Your task to perform on an android device: delete location history Image 0: 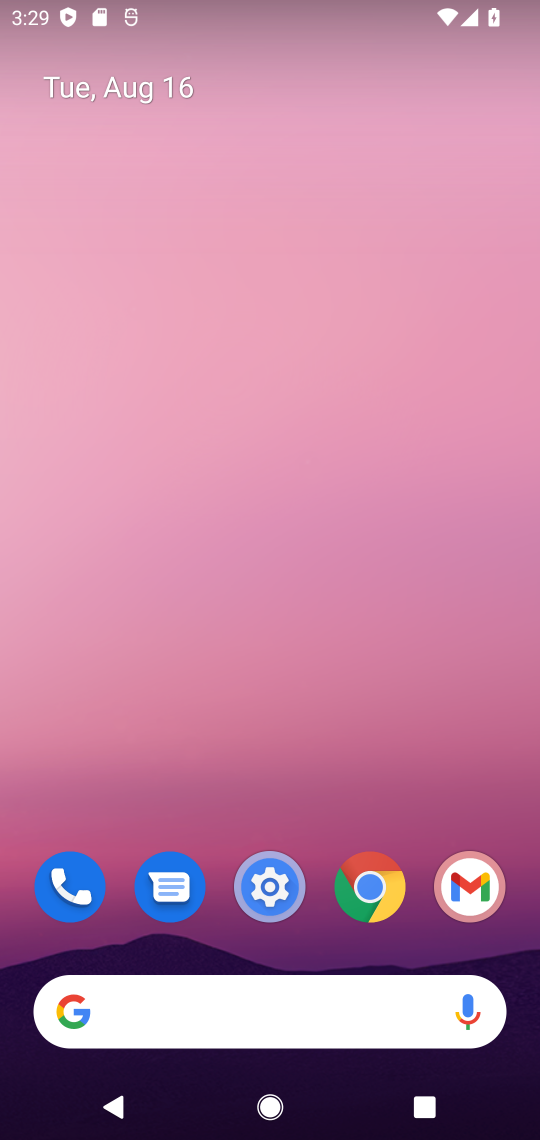
Step 0: drag from (336, 800) to (357, 279)
Your task to perform on an android device: delete location history Image 1: 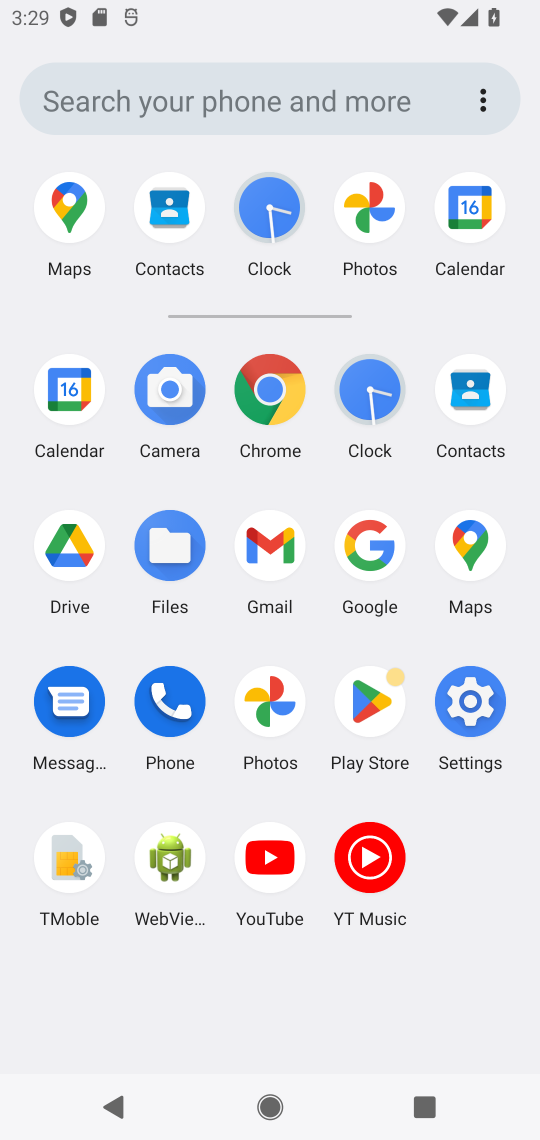
Step 1: click (476, 563)
Your task to perform on an android device: delete location history Image 2: 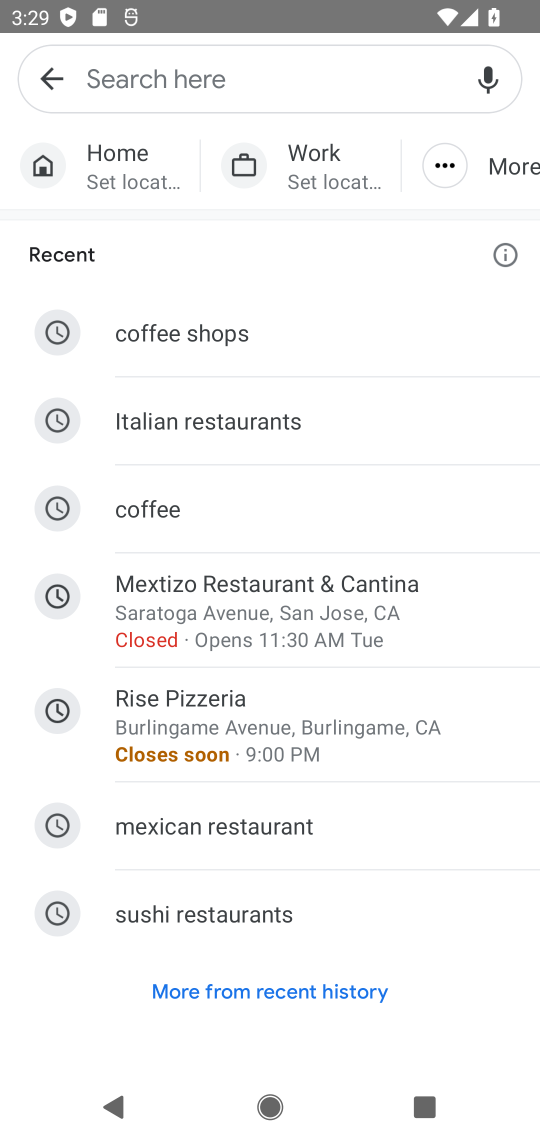
Step 2: click (59, 87)
Your task to perform on an android device: delete location history Image 3: 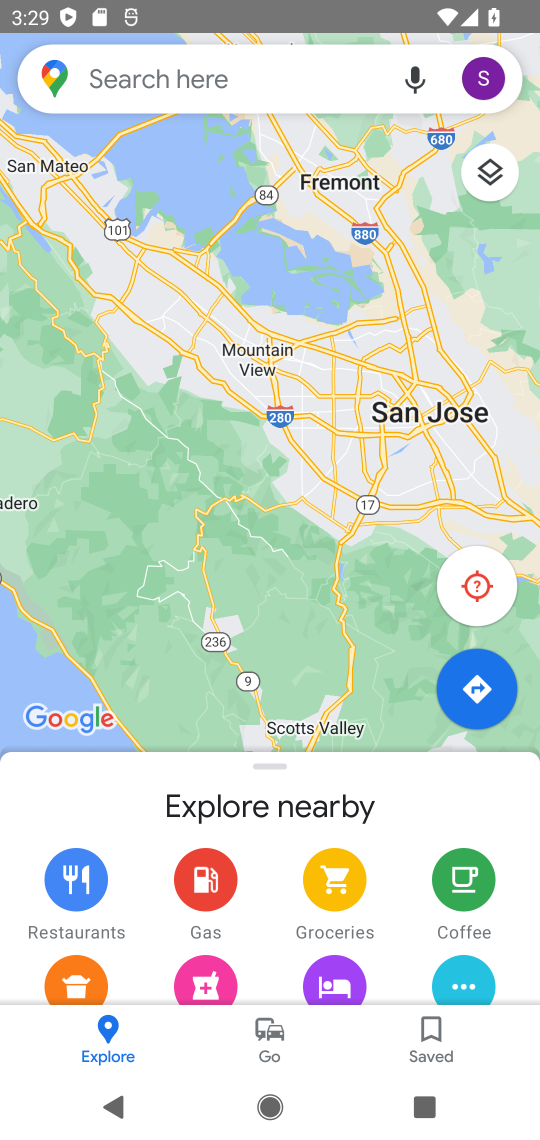
Step 3: click (59, 87)
Your task to perform on an android device: delete location history Image 4: 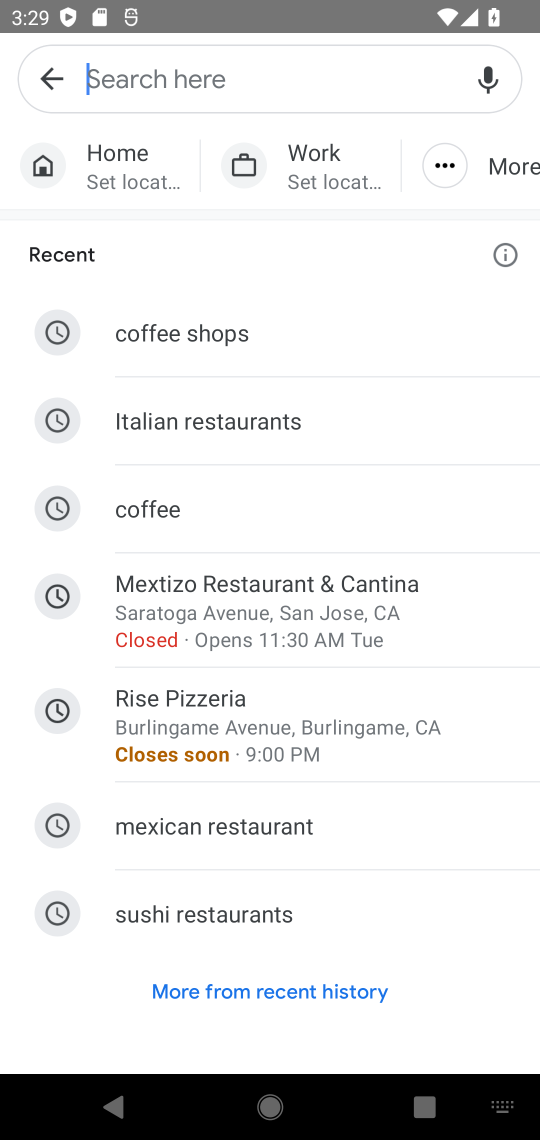
Step 4: click (59, 87)
Your task to perform on an android device: delete location history Image 5: 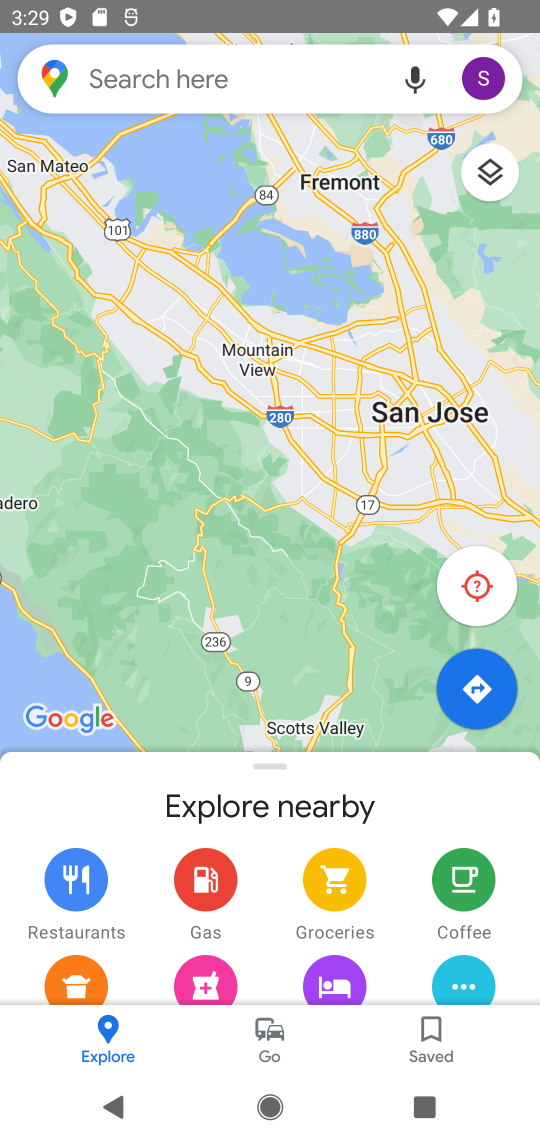
Step 5: click (483, 71)
Your task to perform on an android device: delete location history Image 6: 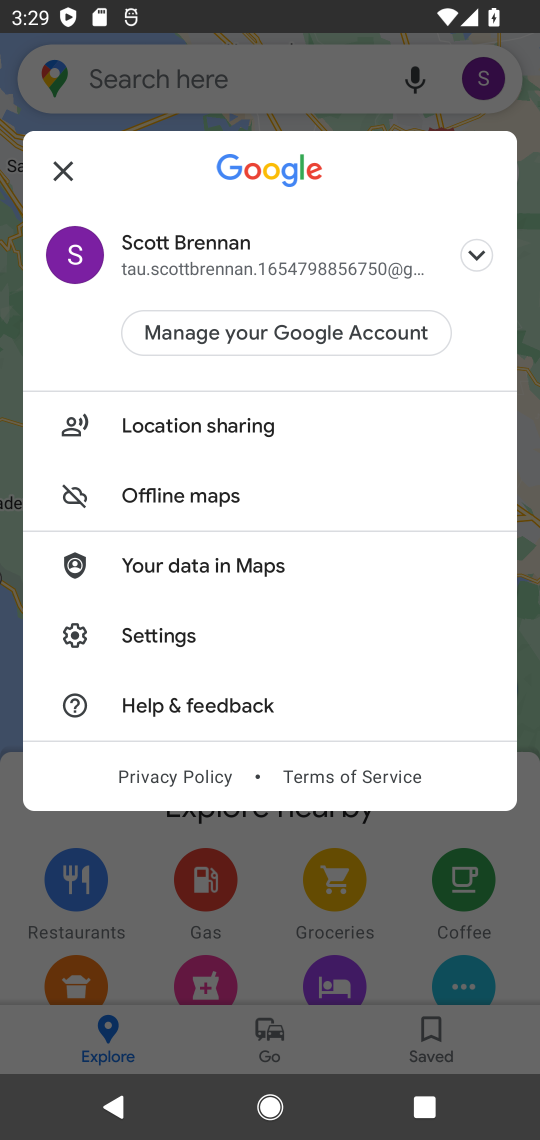
Step 6: click (162, 635)
Your task to perform on an android device: delete location history Image 7: 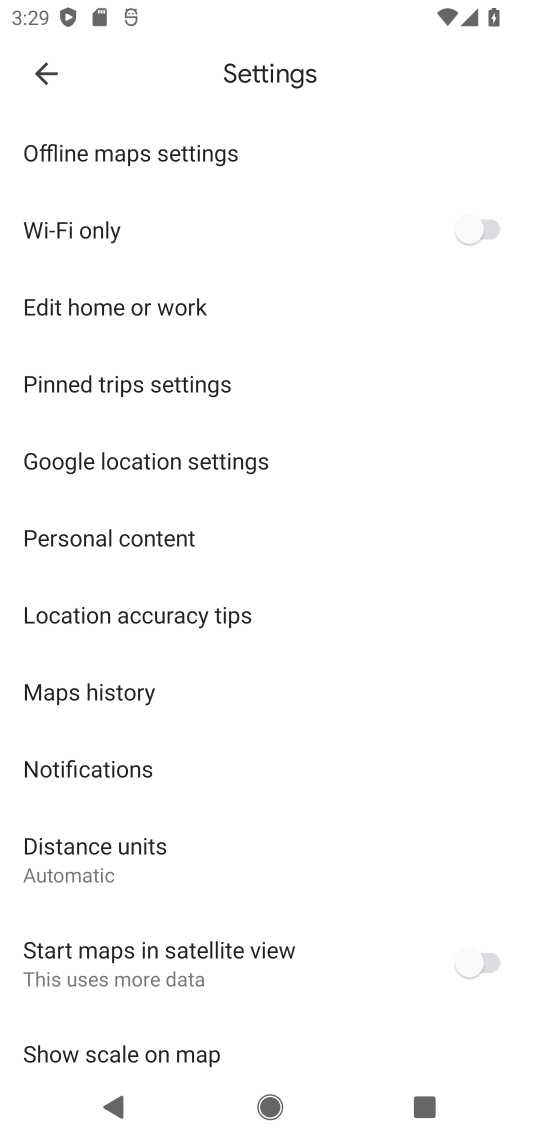
Step 7: click (57, 699)
Your task to perform on an android device: delete location history Image 8: 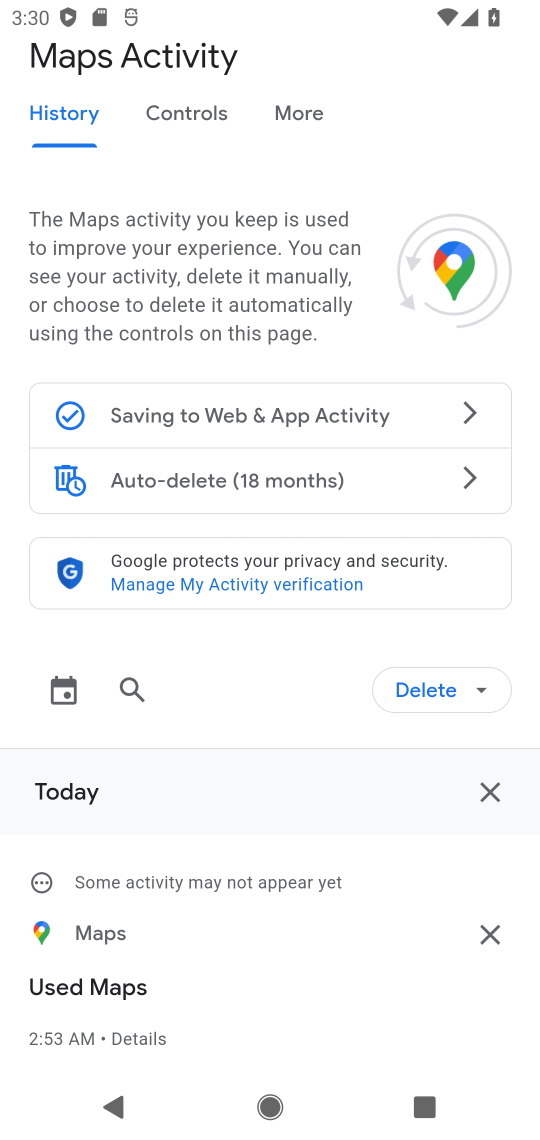
Step 8: click (490, 699)
Your task to perform on an android device: delete location history Image 9: 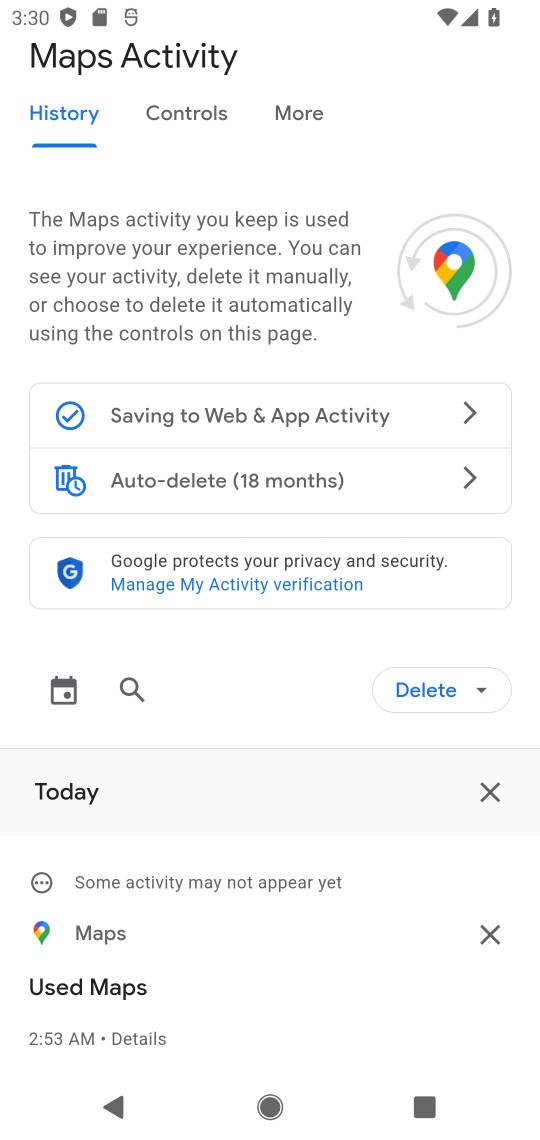
Step 9: click (490, 687)
Your task to perform on an android device: delete location history Image 10: 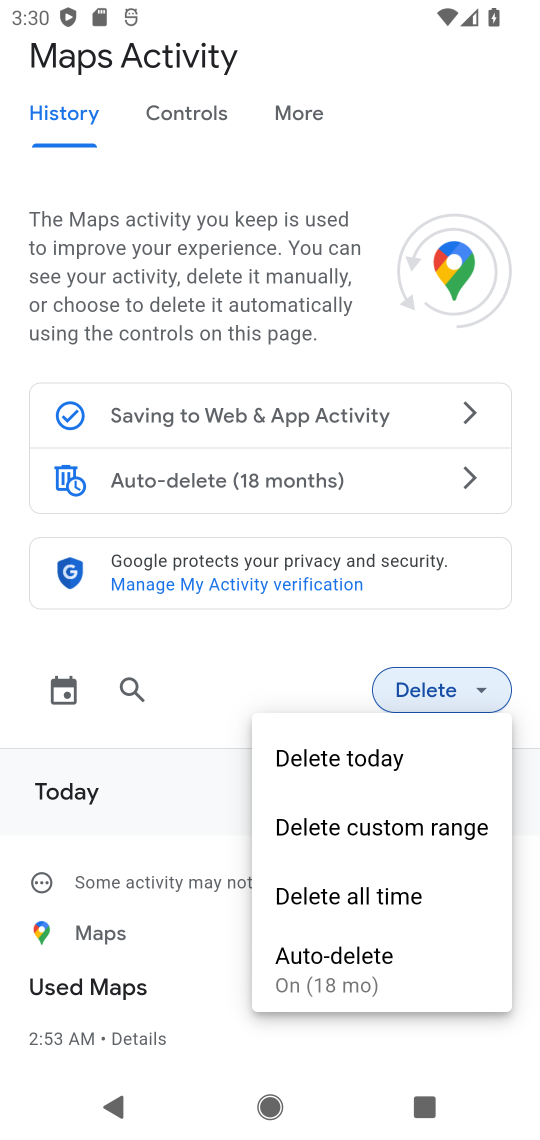
Step 10: click (393, 895)
Your task to perform on an android device: delete location history Image 11: 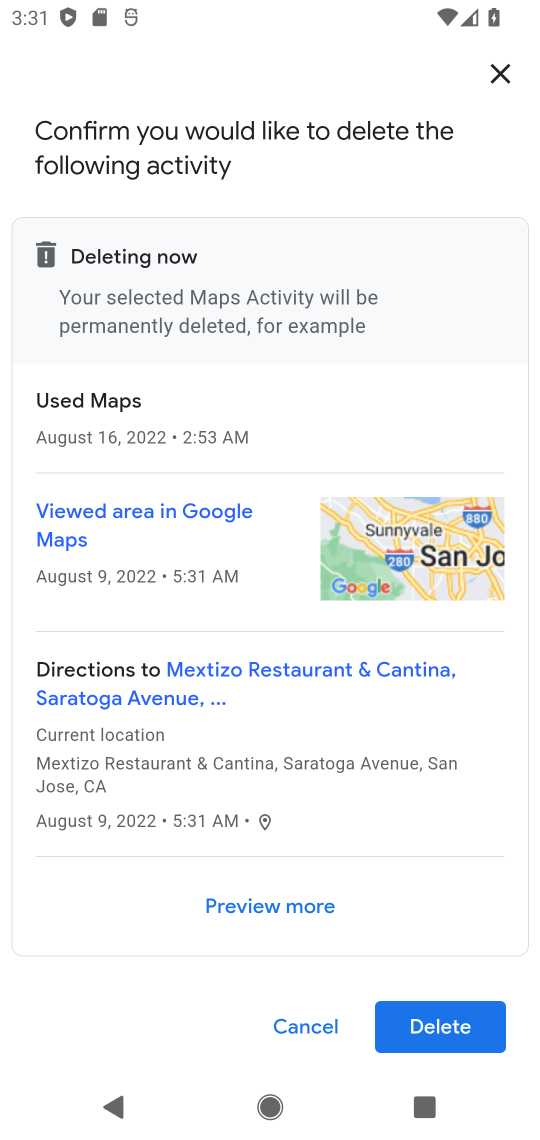
Step 11: click (473, 1043)
Your task to perform on an android device: delete location history Image 12: 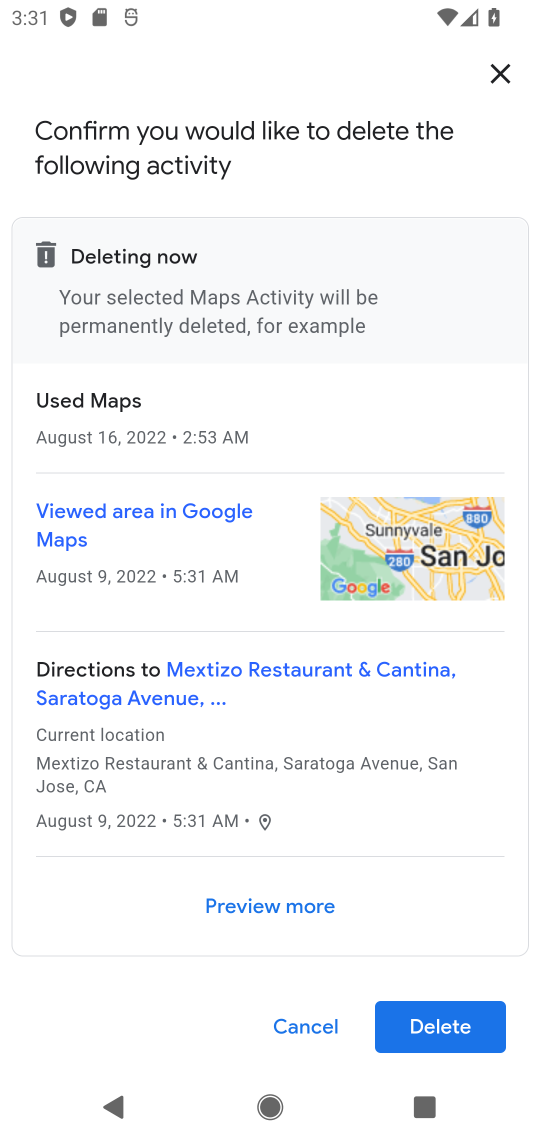
Step 12: click (472, 1032)
Your task to perform on an android device: delete location history Image 13: 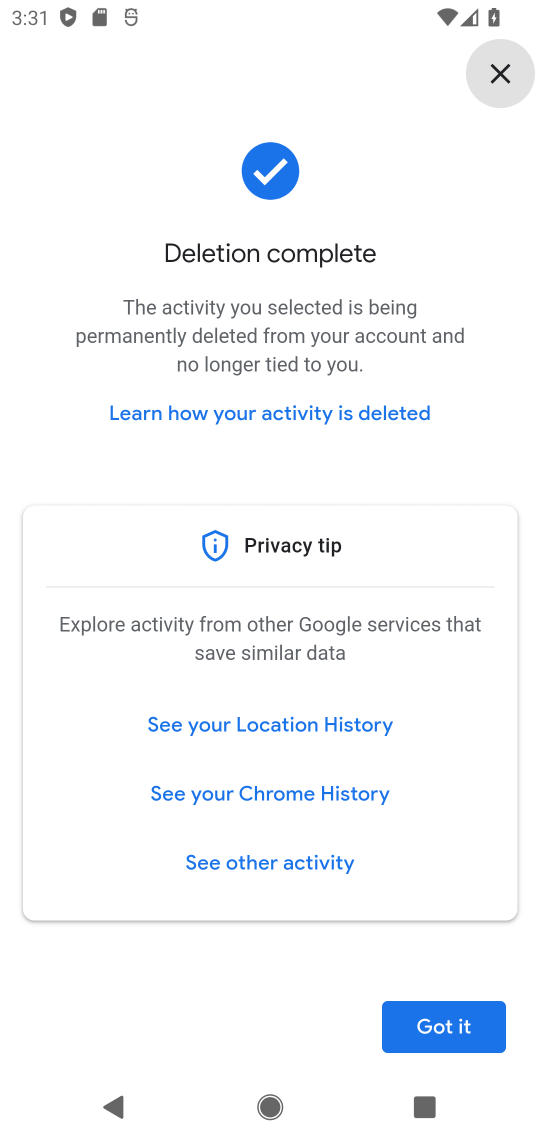
Step 13: click (472, 1030)
Your task to perform on an android device: delete location history Image 14: 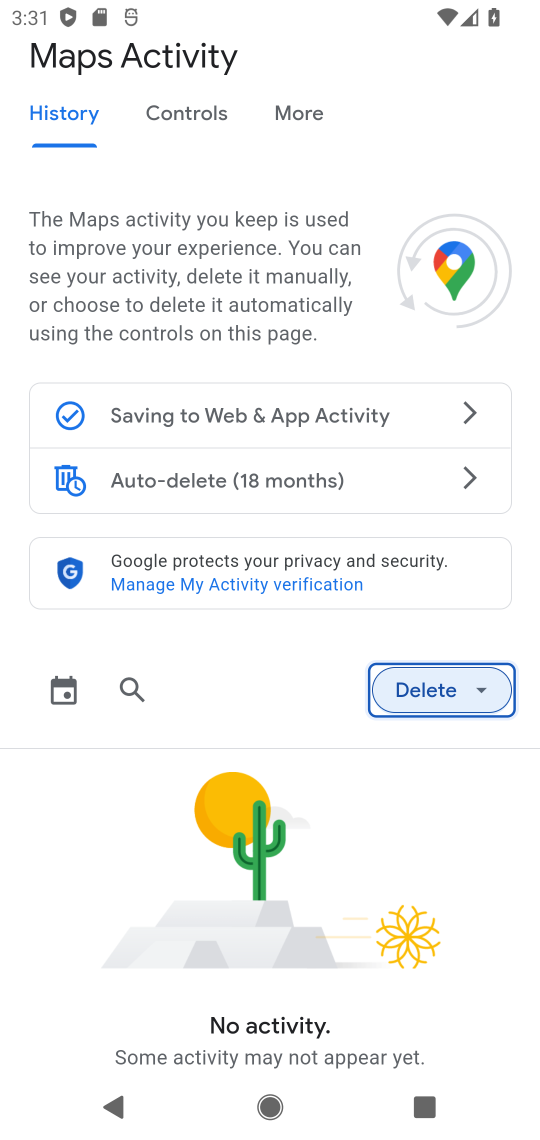
Step 14: task complete